Your task to perform on an android device: Open maps Image 0: 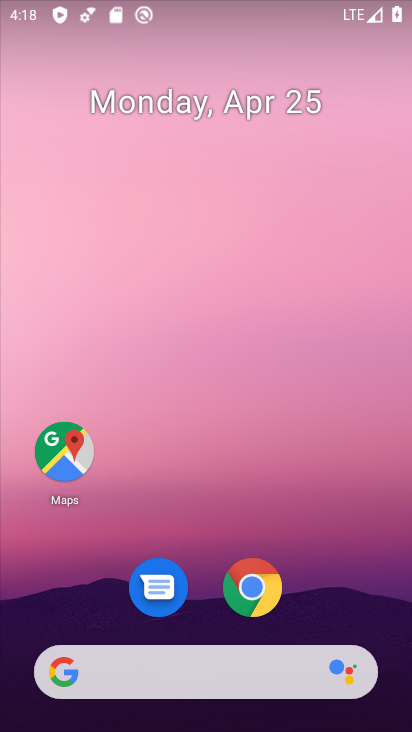
Step 0: click (70, 462)
Your task to perform on an android device: Open maps Image 1: 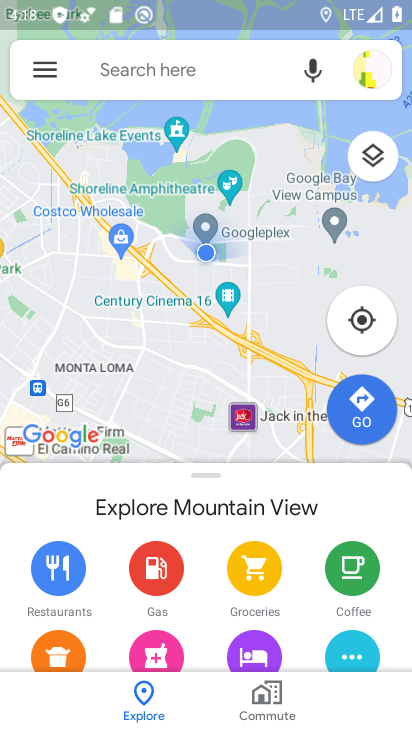
Step 1: task complete